Your task to perform on an android device: clear all cookies in the chrome app Image 0: 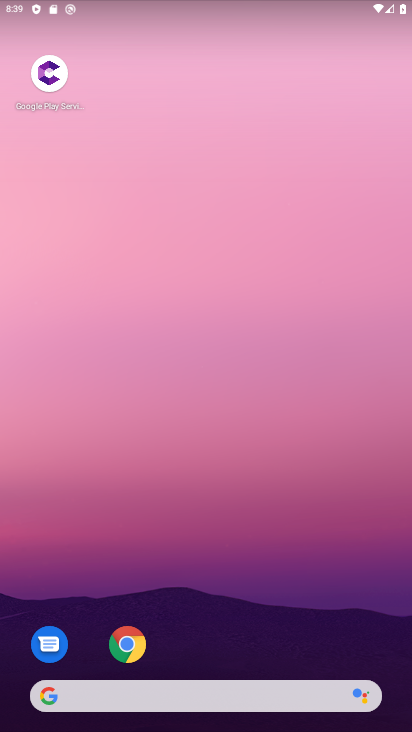
Step 0: drag from (323, 545) to (257, 41)
Your task to perform on an android device: clear all cookies in the chrome app Image 1: 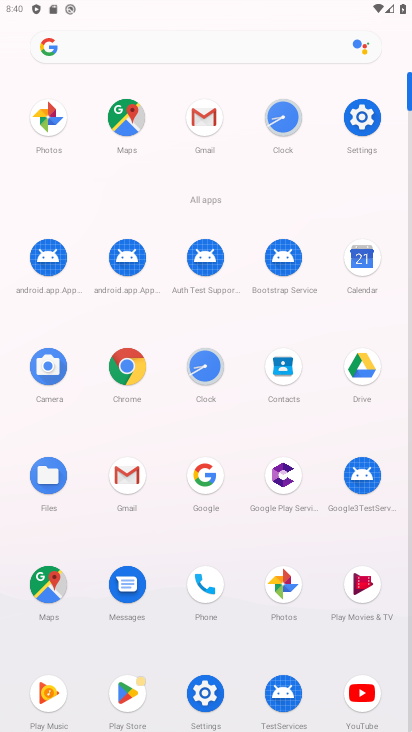
Step 1: click (133, 366)
Your task to perform on an android device: clear all cookies in the chrome app Image 2: 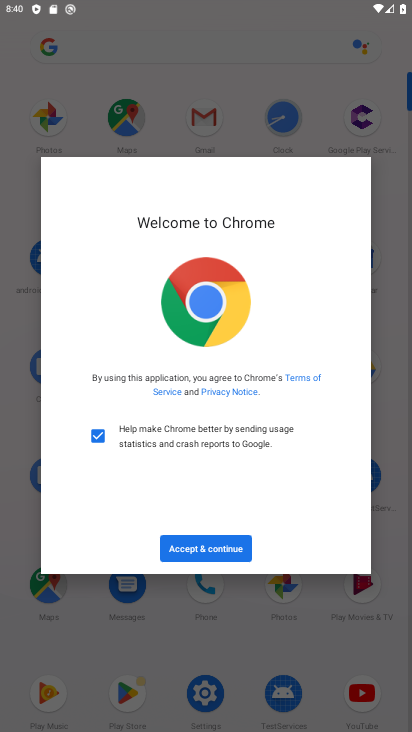
Step 2: click (216, 551)
Your task to perform on an android device: clear all cookies in the chrome app Image 3: 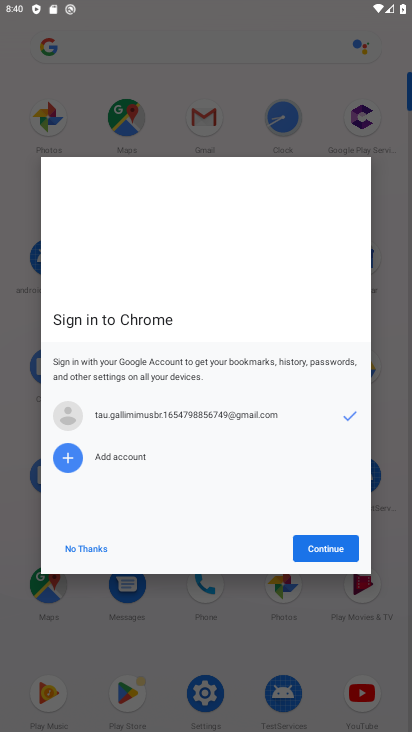
Step 3: click (88, 537)
Your task to perform on an android device: clear all cookies in the chrome app Image 4: 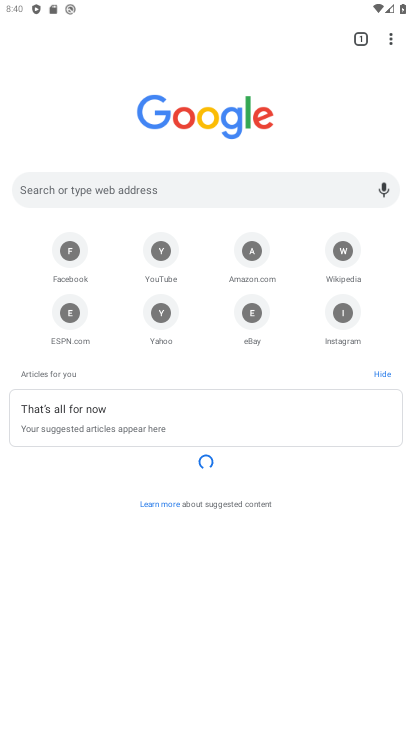
Step 4: task complete